Your task to perform on an android device: turn pop-ups off in chrome Image 0: 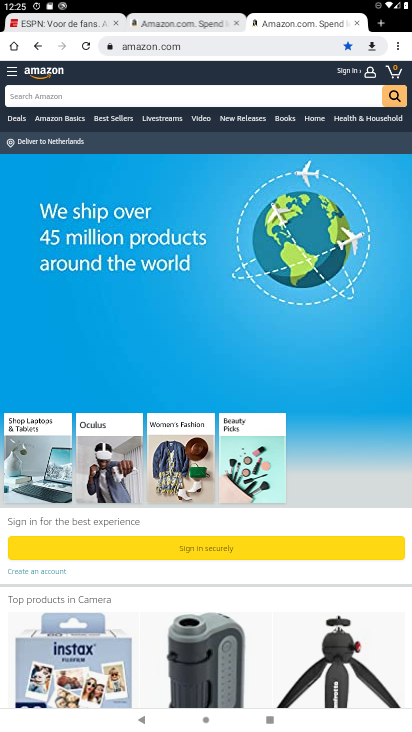
Step 0: click (396, 41)
Your task to perform on an android device: turn pop-ups off in chrome Image 1: 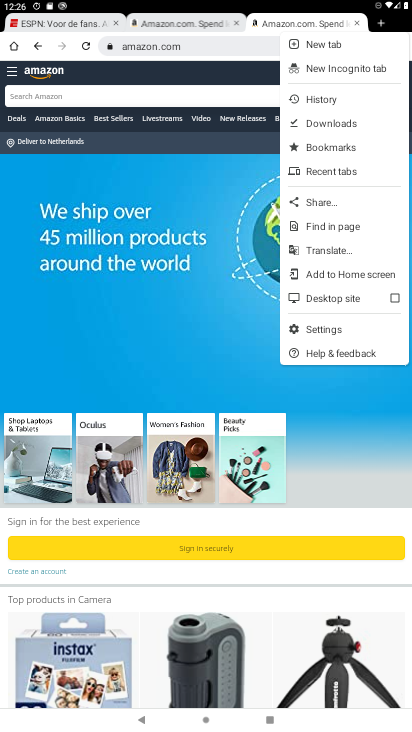
Step 1: click (312, 330)
Your task to perform on an android device: turn pop-ups off in chrome Image 2: 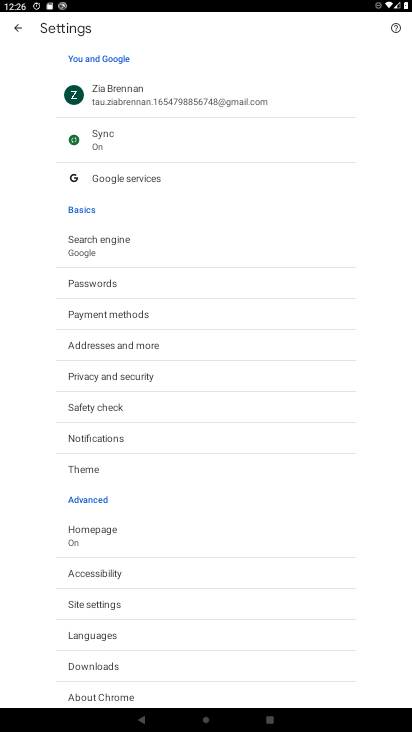
Step 2: click (118, 608)
Your task to perform on an android device: turn pop-ups off in chrome Image 3: 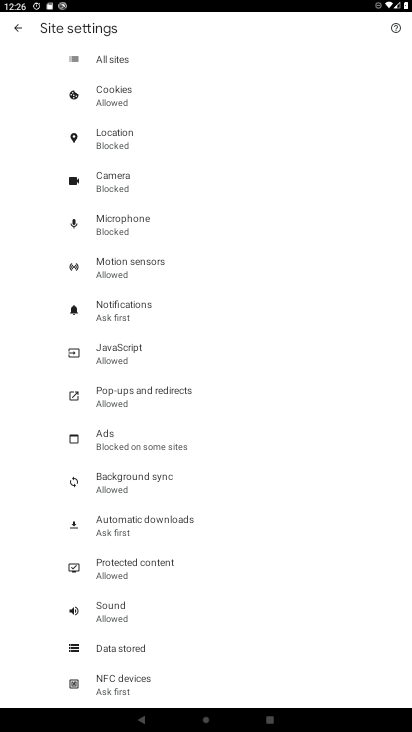
Step 3: click (132, 387)
Your task to perform on an android device: turn pop-ups off in chrome Image 4: 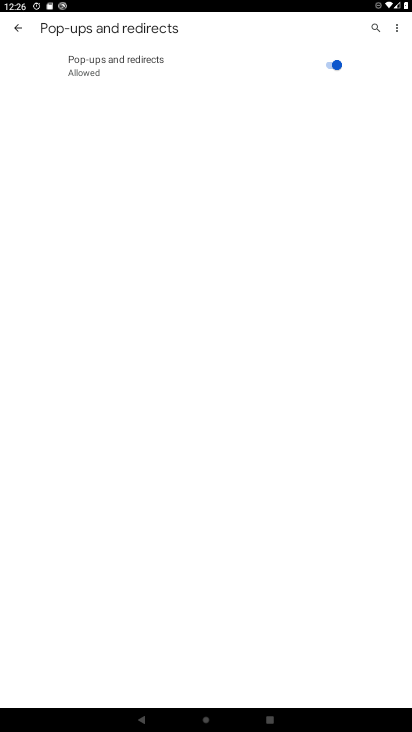
Step 4: click (327, 67)
Your task to perform on an android device: turn pop-ups off in chrome Image 5: 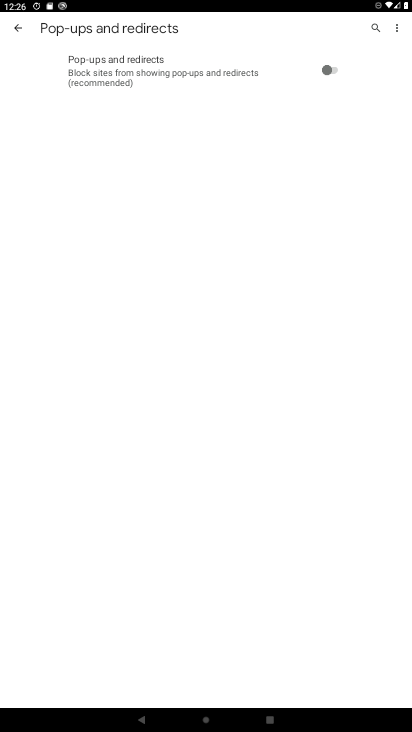
Step 5: task complete